Your task to perform on an android device: Open network settings Image 0: 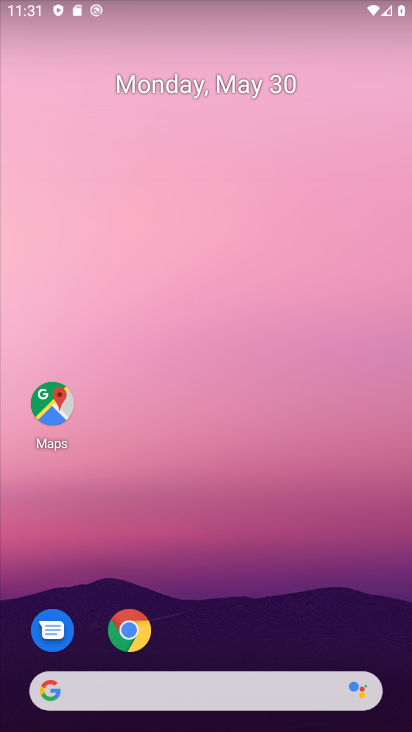
Step 0: drag from (253, 643) to (275, 10)
Your task to perform on an android device: Open network settings Image 1: 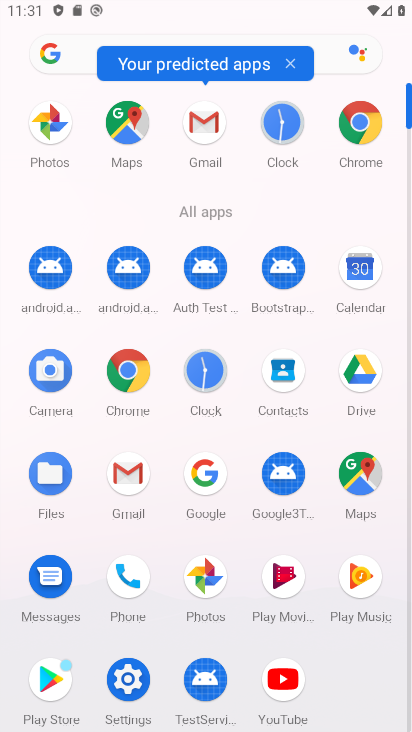
Step 1: click (126, 679)
Your task to perform on an android device: Open network settings Image 2: 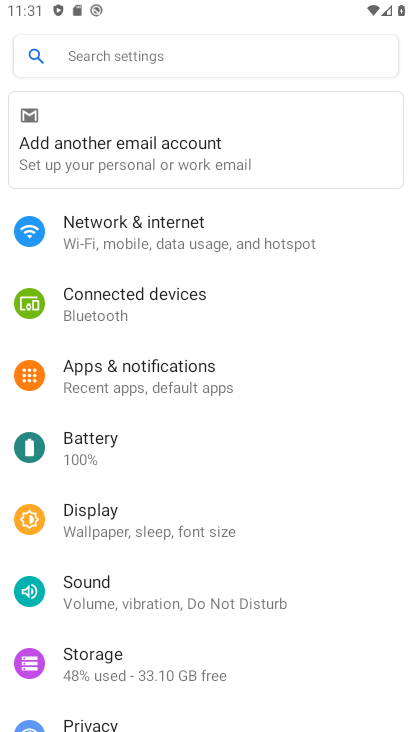
Step 2: click (163, 246)
Your task to perform on an android device: Open network settings Image 3: 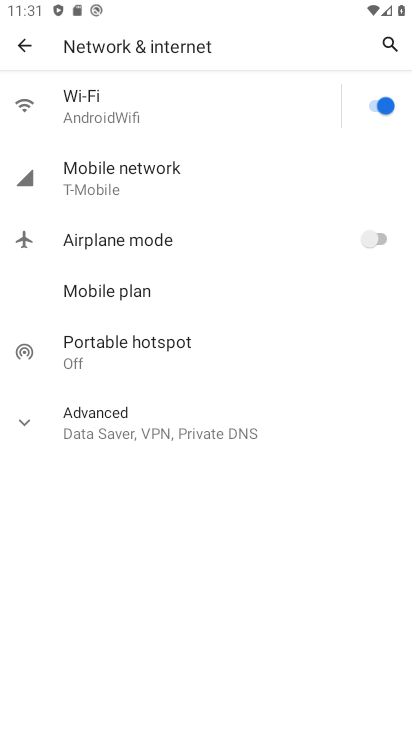
Step 3: click (148, 188)
Your task to perform on an android device: Open network settings Image 4: 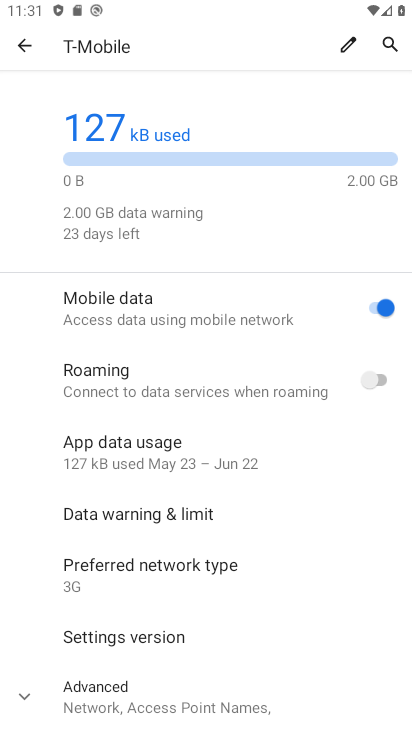
Step 4: task complete